Your task to perform on an android device: toggle sleep mode Image 0: 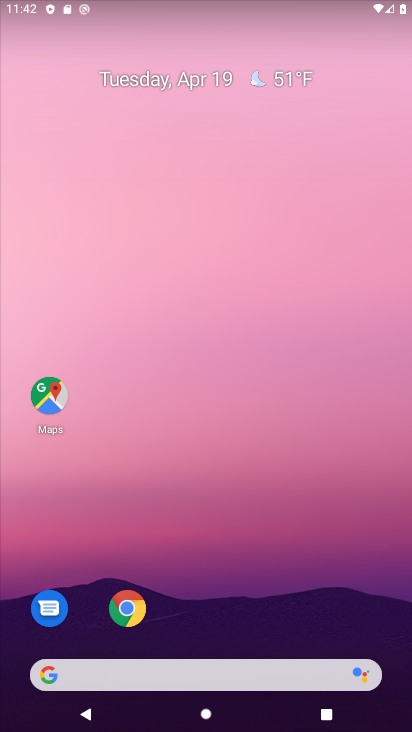
Step 0: drag from (209, 638) to (178, 20)
Your task to perform on an android device: toggle sleep mode Image 1: 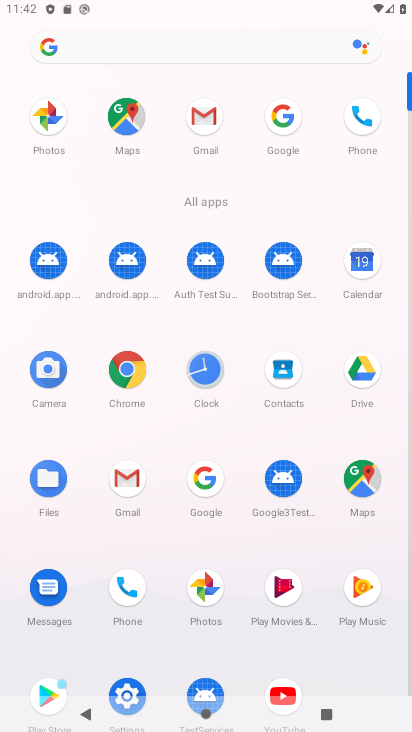
Step 1: click (121, 678)
Your task to perform on an android device: toggle sleep mode Image 2: 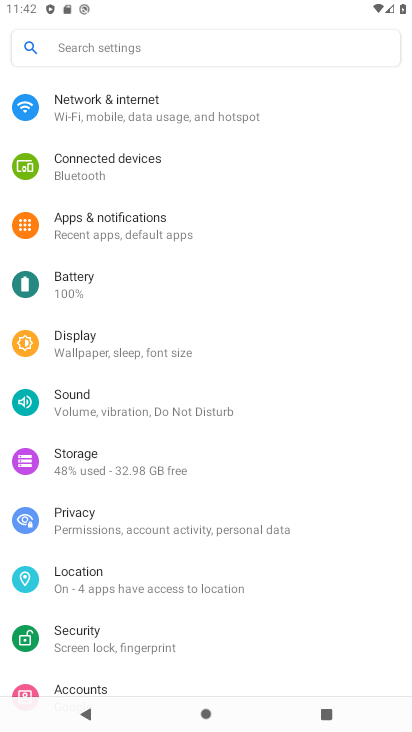
Step 2: click (117, 446)
Your task to perform on an android device: toggle sleep mode Image 3: 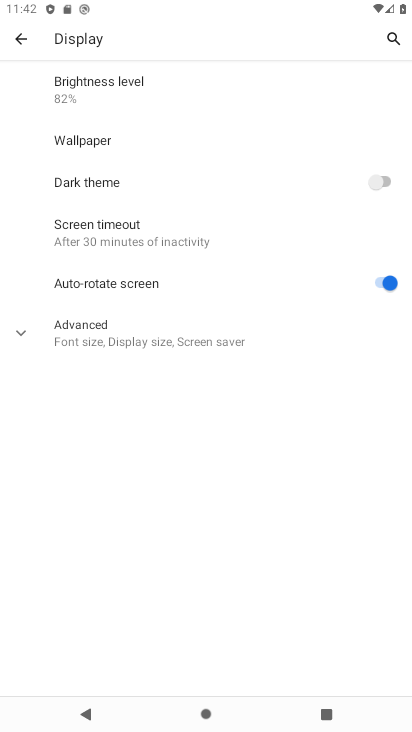
Step 3: click (100, 319)
Your task to perform on an android device: toggle sleep mode Image 4: 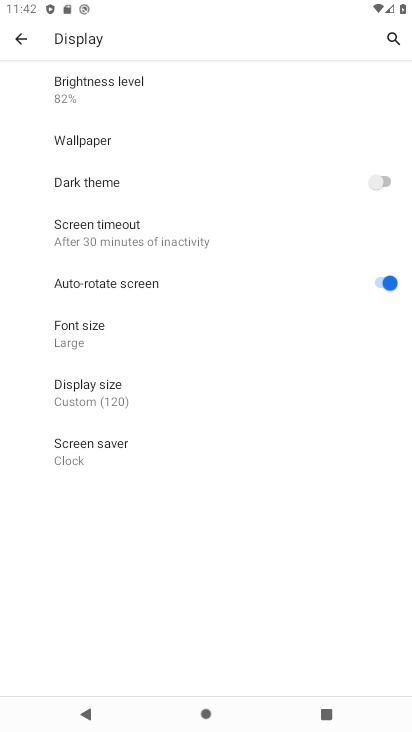
Step 4: task complete